Your task to perform on an android device: set the timer Image 0: 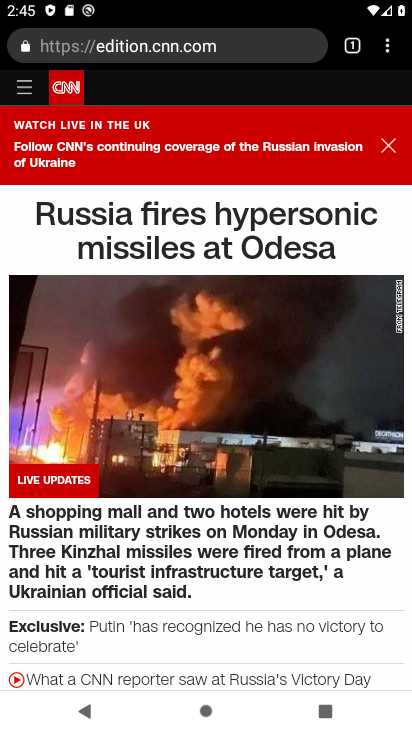
Step 0: press back button
Your task to perform on an android device: set the timer Image 1: 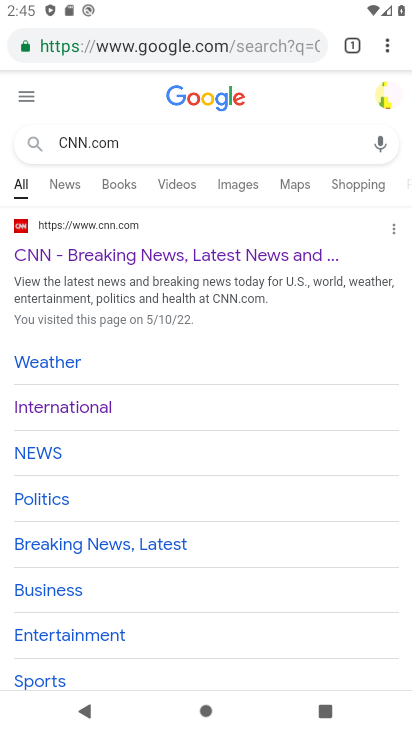
Step 1: press home button
Your task to perform on an android device: set the timer Image 2: 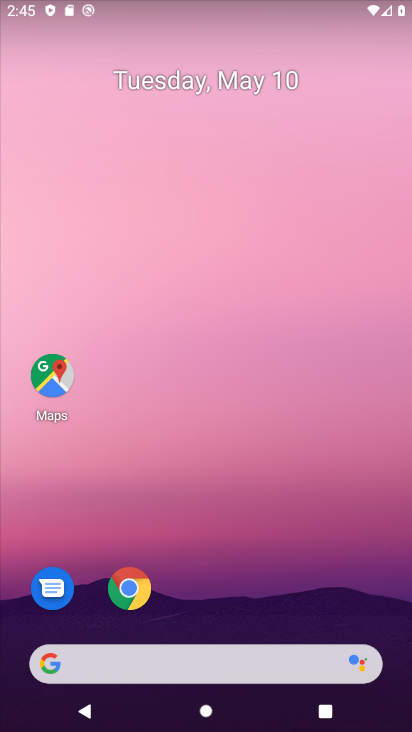
Step 2: drag from (218, 651) to (331, 88)
Your task to perform on an android device: set the timer Image 3: 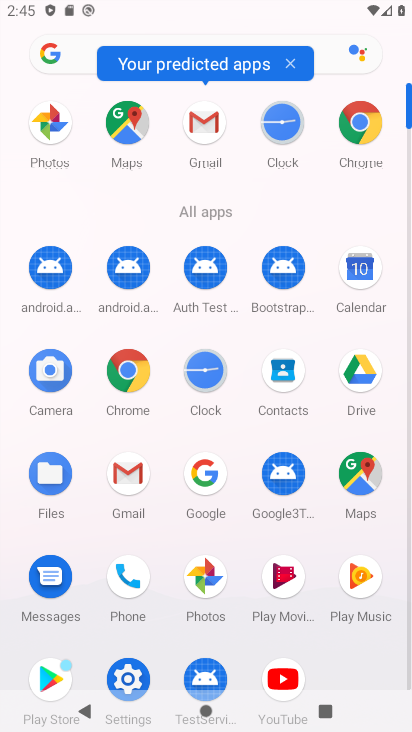
Step 3: click (193, 372)
Your task to perform on an android device: set the timer Image 4: 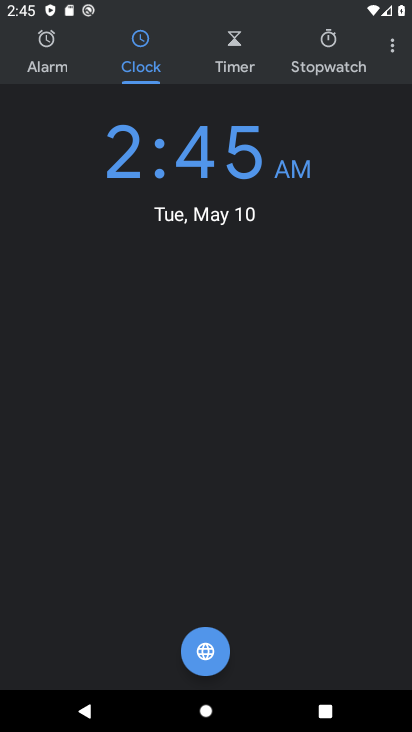
Step 4: click (237, 58)
Your task to perform on an android device: set the timer Image 5: 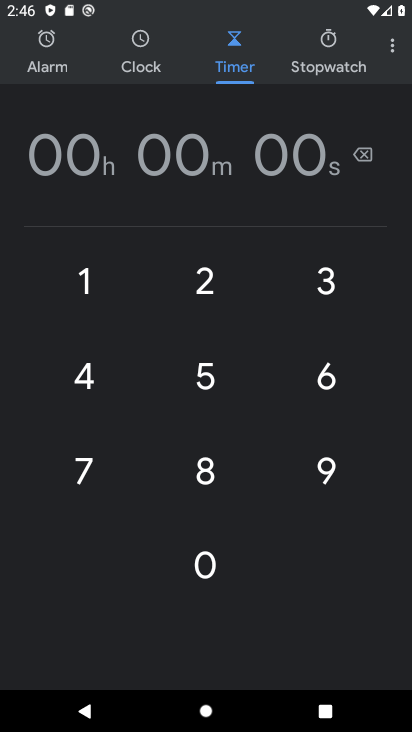
Step 5: click (225, 275)
Your task to perform on an android device: set the timer Image 6: 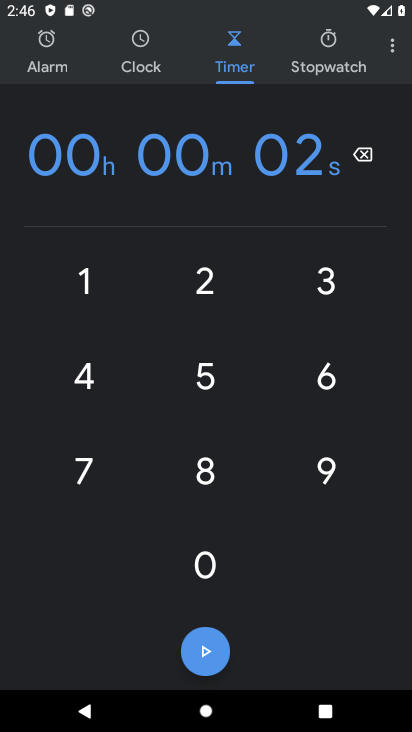
Step 6: click (208, 657)
Your task to perform on an android device: set the timer Image 7: 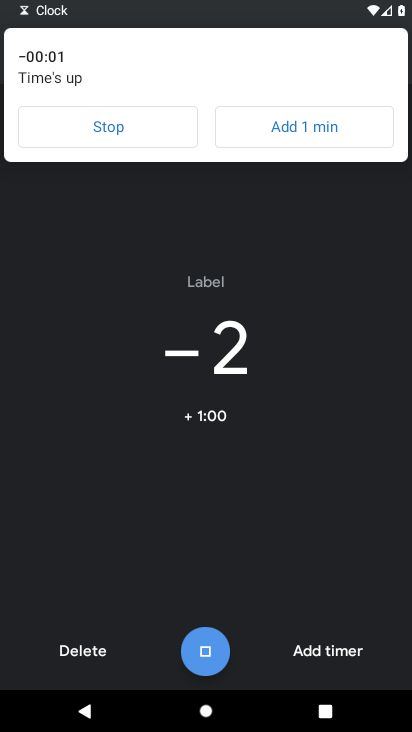
Step 7: task complete